Your task to perform on an android device: What is the recent news? Image 0: 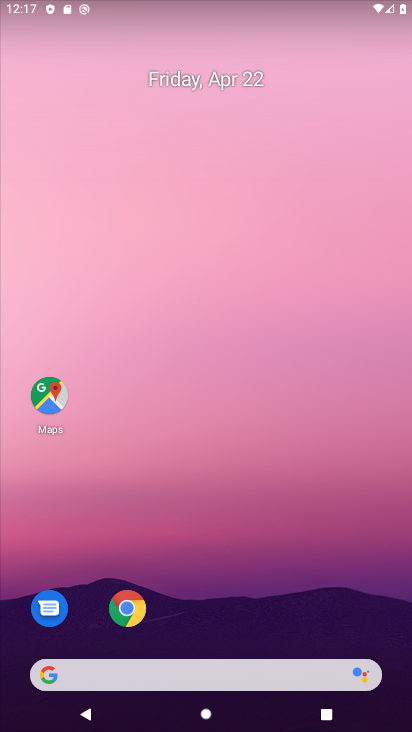
Step 0: drag from (9, 236) to (410, 280)
Your task to perform on an android device: What is the recent news? Image 1: 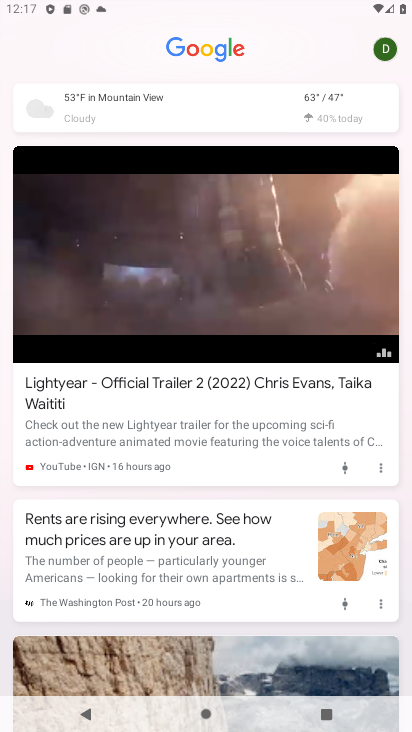
Step 1: task complete